Your task to perform on an android device: uninstall "TextNow: Call + Text Unlimited" Image 0: 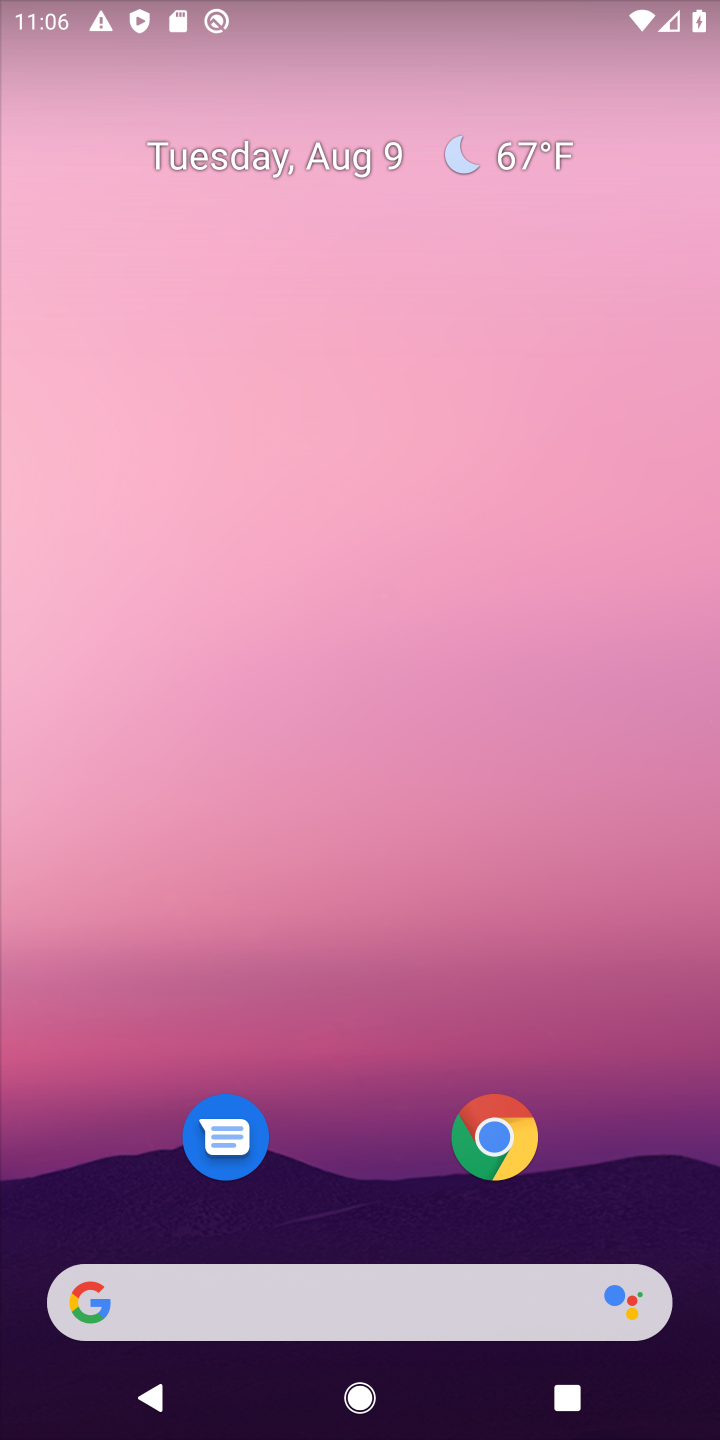
Step 0: drag from (613, 1162) to (356, 77)
Your task to perform on an android device: uninstall "TextNow: Call + Text Unlimited" Image 1: 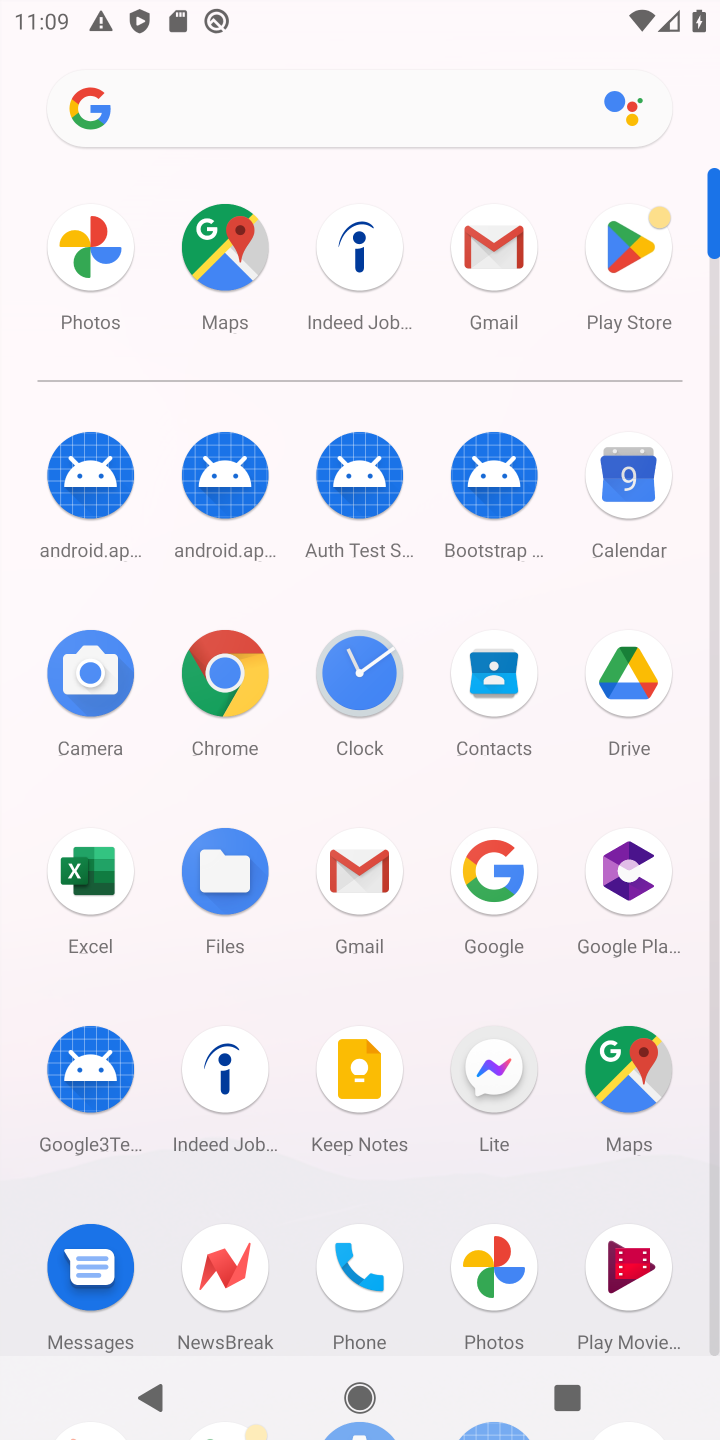
Step 1: click (618, 253)
Your task to perform on an android device: uninstall "TextNow: Call + Text Unlimited" Image 2: 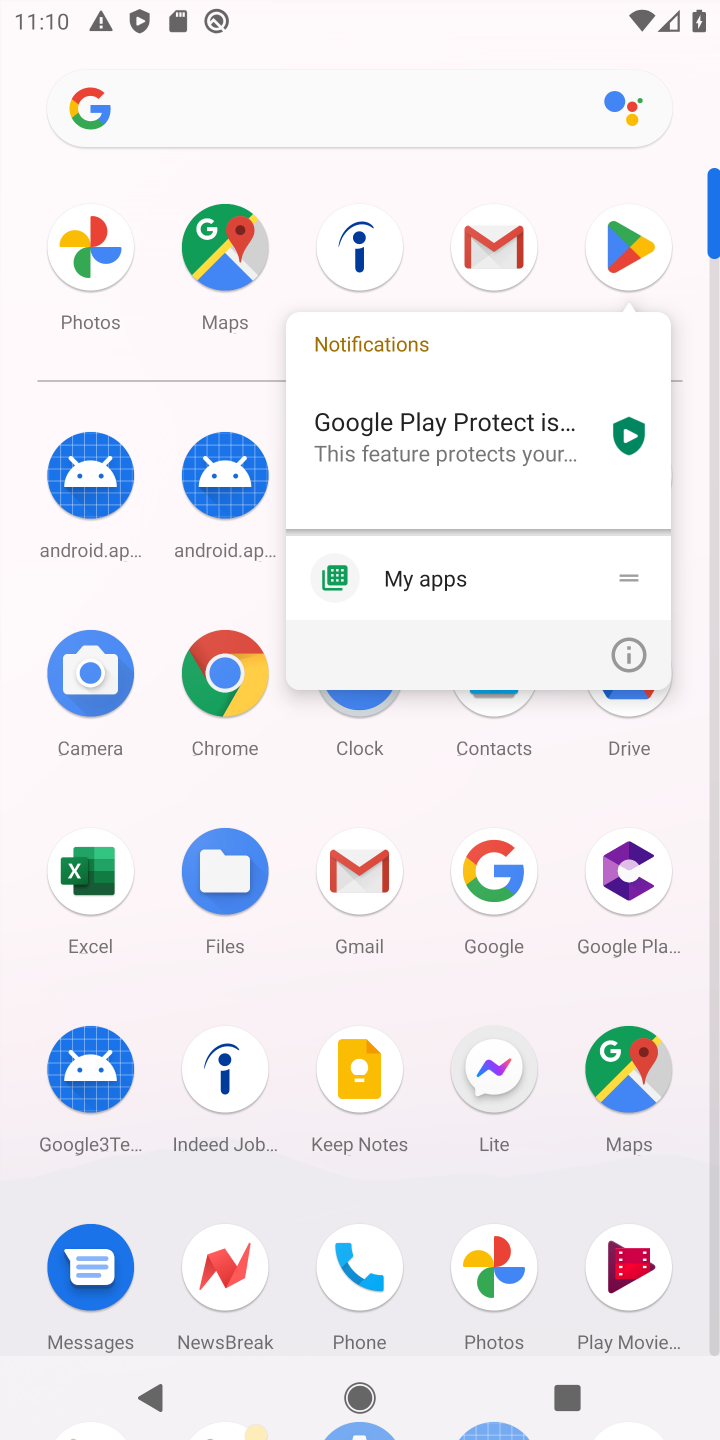
Step 2: click (618, 253)
Your task to perform on an android device: uninstall "TextNow: Call + Text Unlimited" Image 3: 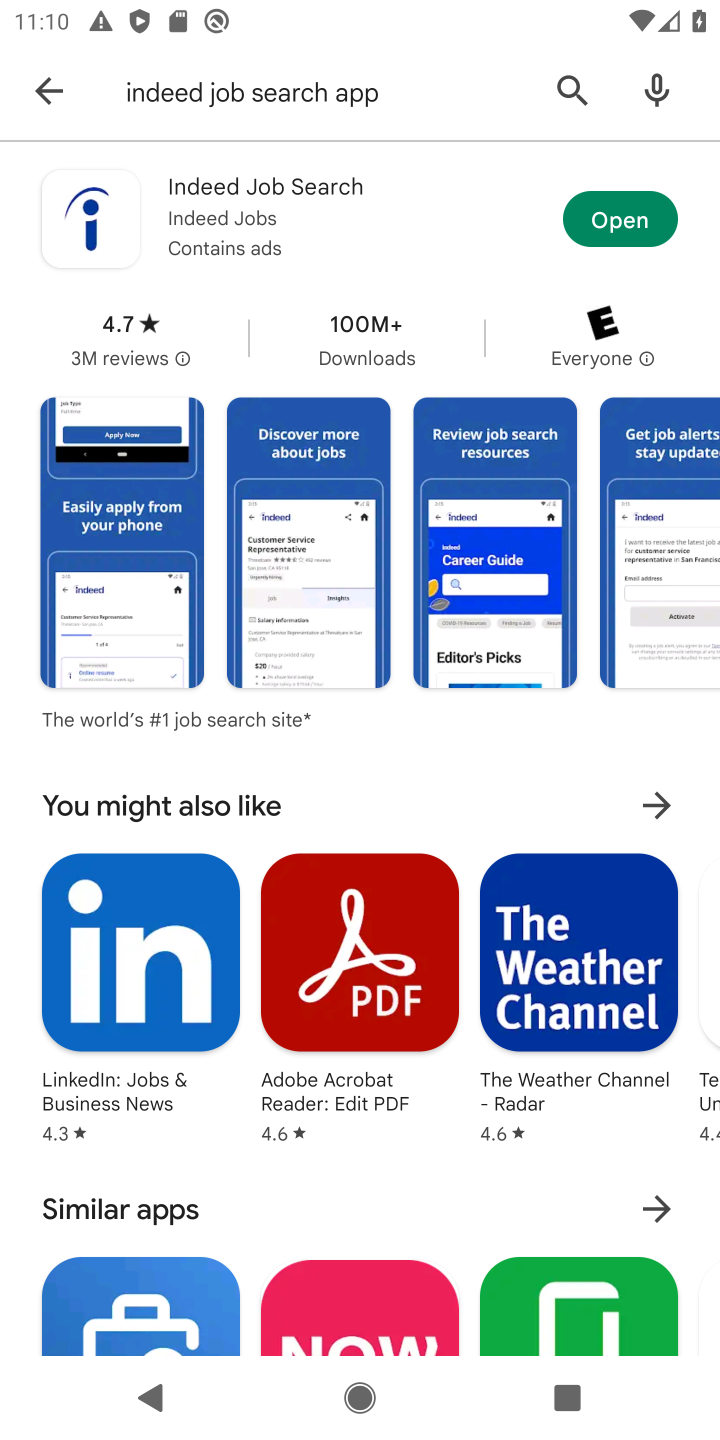
Step 3: press back button
Your task to perform on an android device: uninstall "TextNow: Call + Text Unlimited" Image 4: 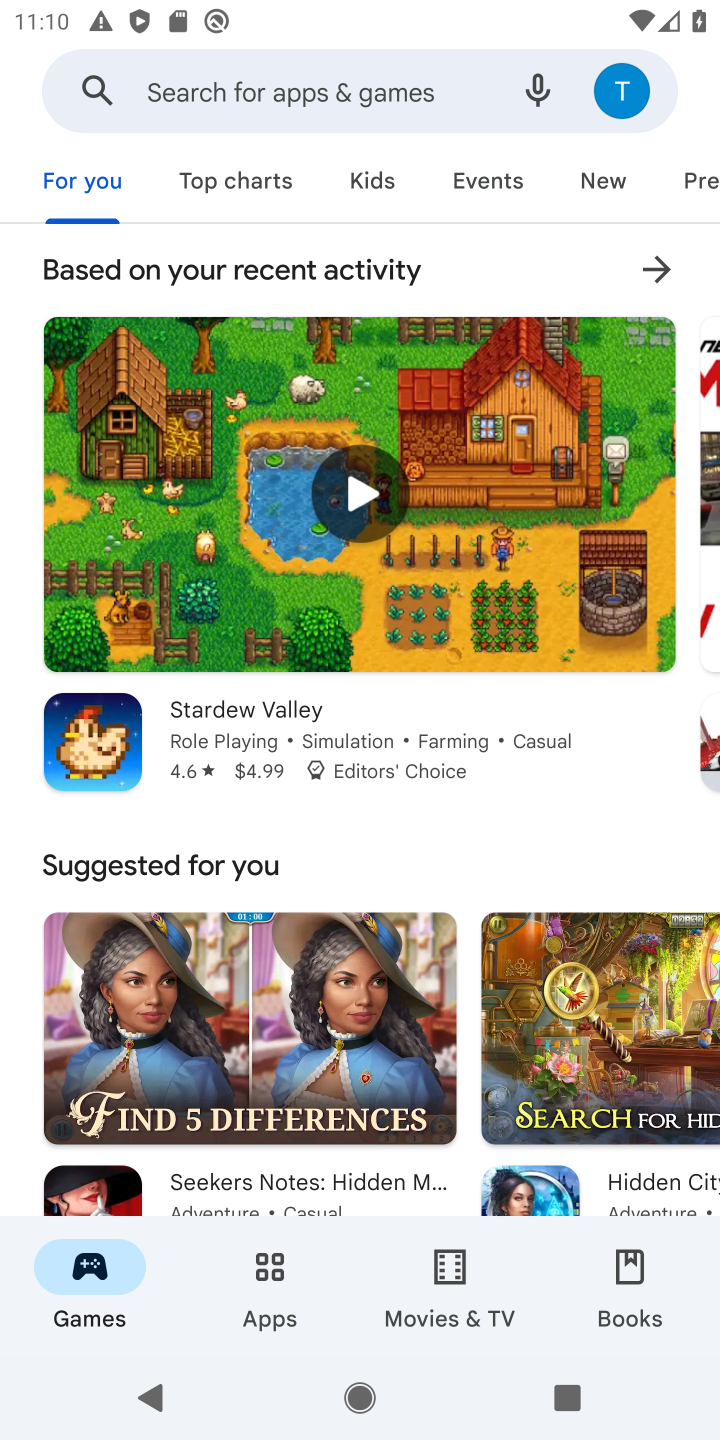
Step 4: click (223, 95)
Your task to perform on an android device: uninstall "TextNow: Call + Text Unlimited" Image 5: 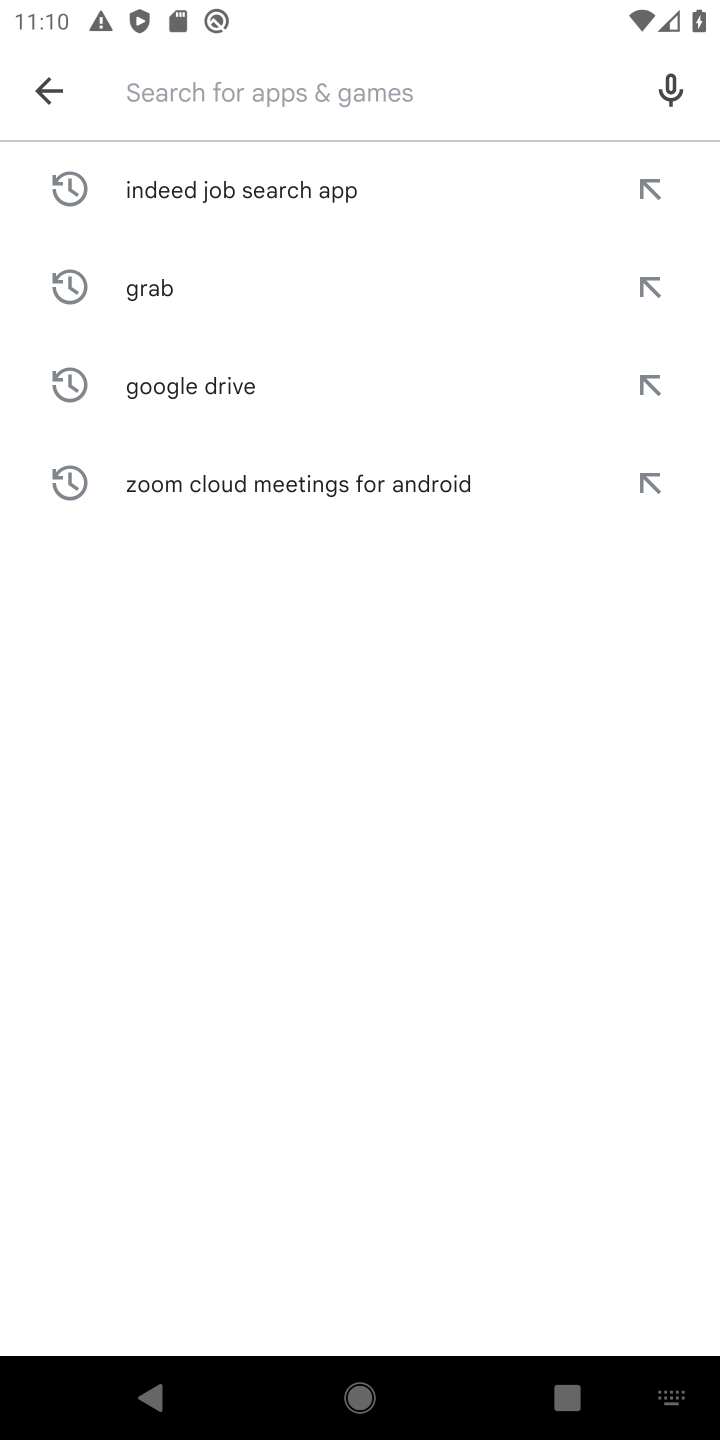
Step 5: type "TextNow: Call + Text Unlimited"
Your task to perform on an android device: uninstall "TextNow: Call + Text Unlimited" Image 6: 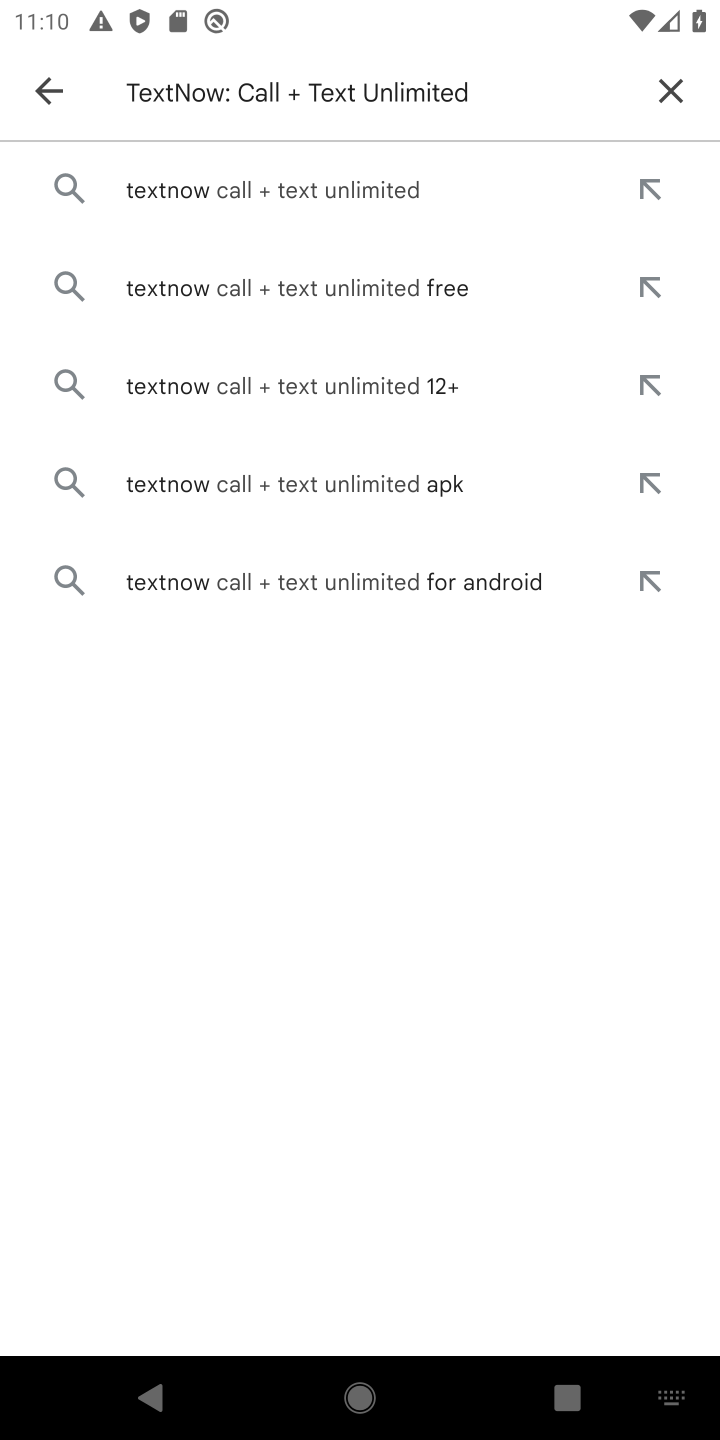
Step 6: click (325, 215)
Your task to perform on an android device: uninstall "TextNow: Call + Text Unlimited" Image 7: 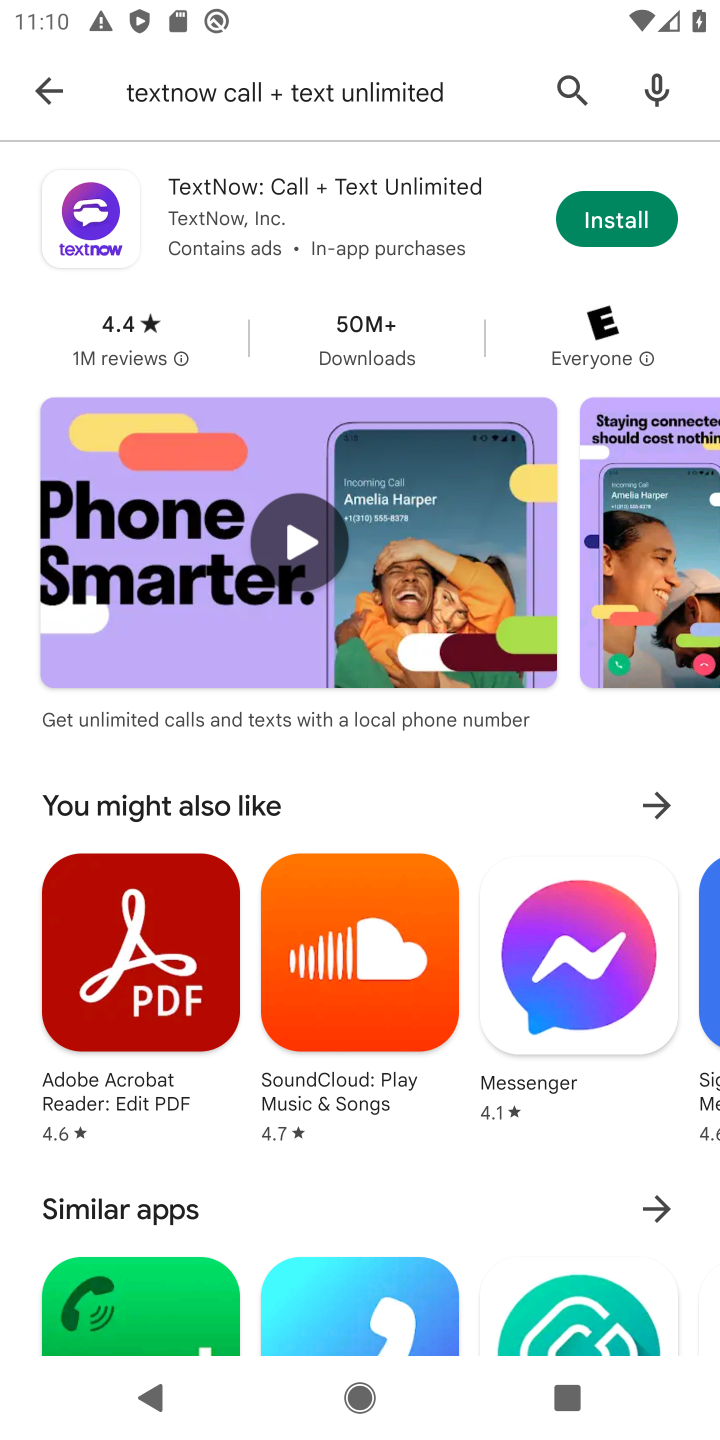
Step 7: task complete